Your task to perform on an android device: Open Google Maps and go to "Timeline" Image 0: 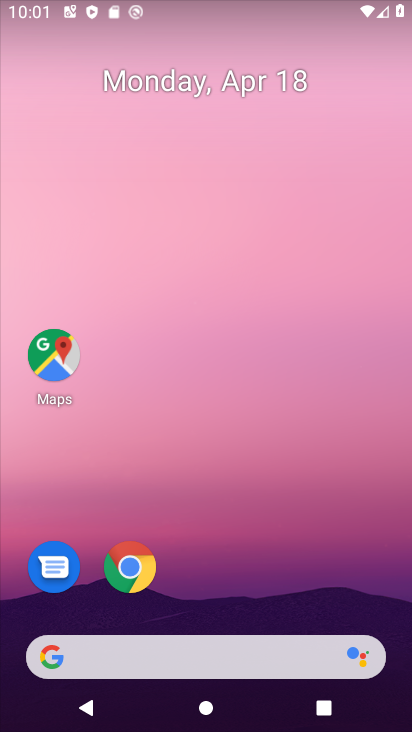
Step 0: drag from (349, 577) to (344, 190)
Your task to perform on an android device: Open Google Maps and go to "Timeline" Image 1: 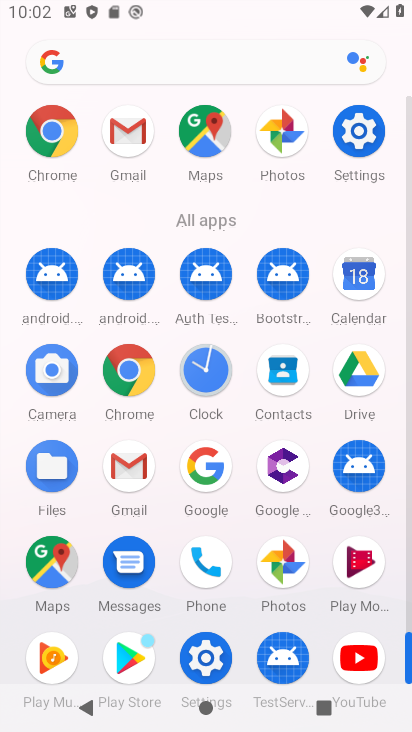
Step 1: click (202, 139)
Your task to perform on an android device: Open Google Maps and go to "Timeline" Image 2: 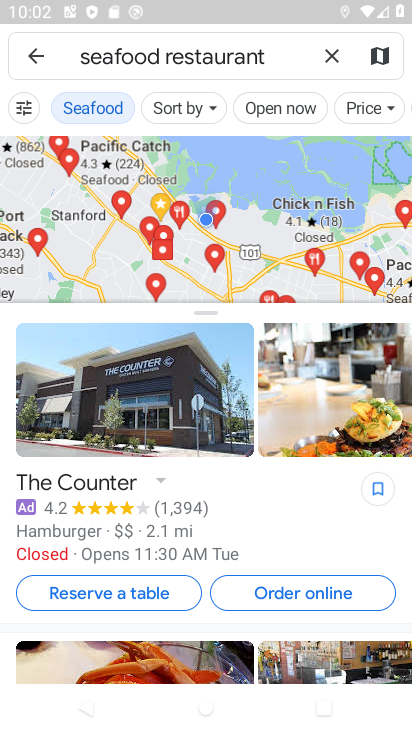
Step 2: click (32, 54)
Your task to perform on an android device: Open Google Maps and go to "Timeline" Image 3: 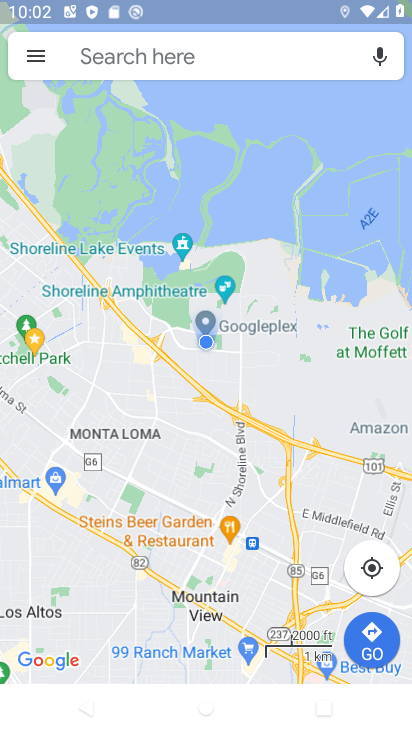
Step 3: click (32, 54)
Your task to perform on an android device: Open Google Maps and go to "Timeline" Image 4: 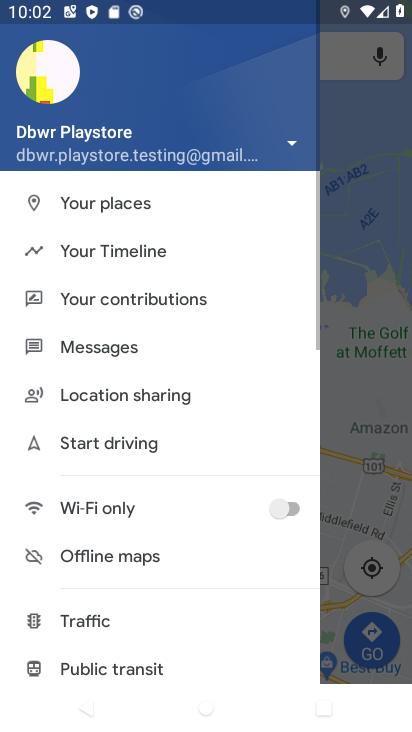
Step 4: click (45, 251)
Your task to perform on an android device: Open Google Maps and go to "Timeline" Image 5: 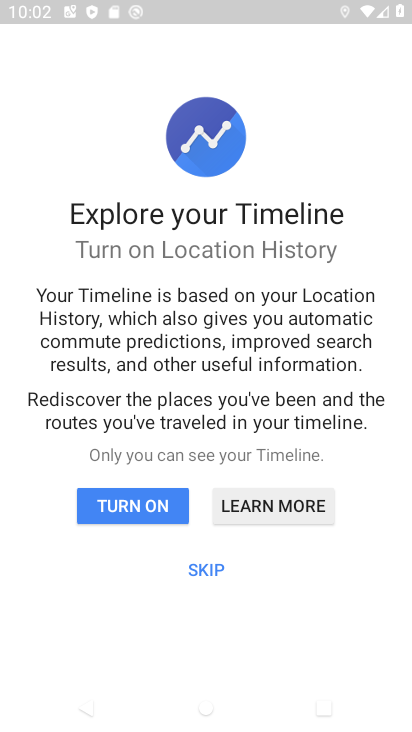
Step 5: click (212, 559)
Your task to perform on an android device: Open Google Maps and go to "Timeline" Image 6: 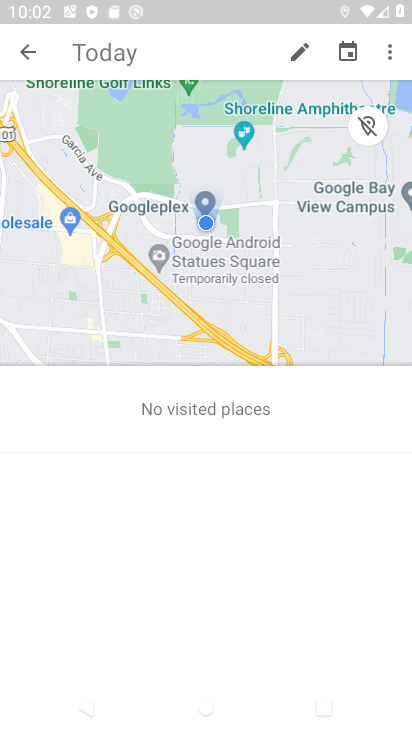
Step 6: task complete